Your task to perform on an android device: Open calendar and show me the first week of next month Image 0: 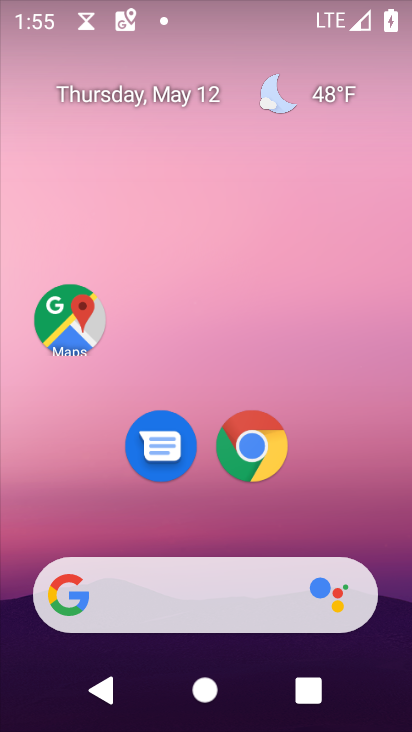
Step 0: click (145, 93)
Your task to perform on an android device: Open calendar and show me the first week of next month Image 1: 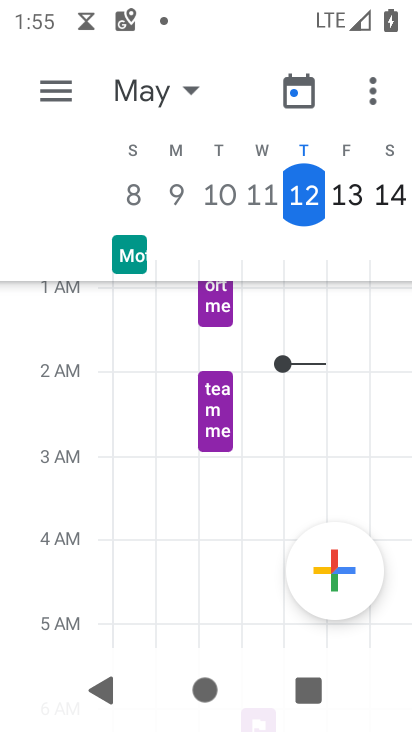
Step 1: click (162, 88)
Your task to perform on an android device: Open calendar and show me the first week of next month Image 2: 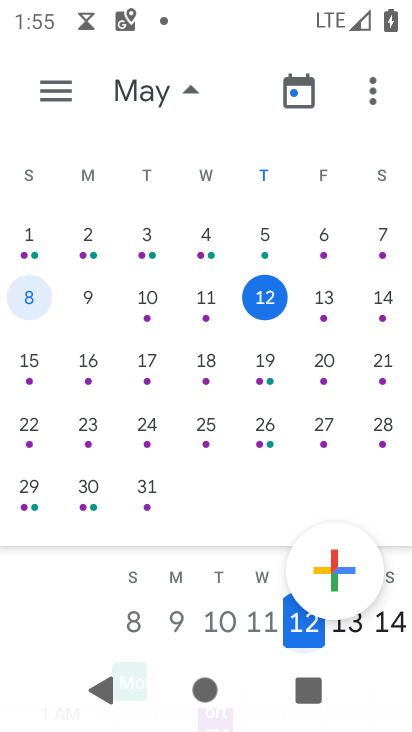
Step 2: task complete